Your task to perform on an android device: move an email to a new category in the gmail app Image 0: 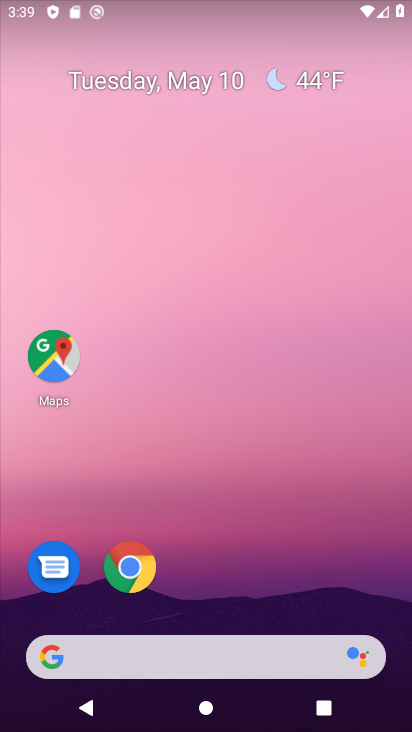
Step 0: drag from (213, 607) to (262, 73)
Your task to perform on an android device: move an email to a new category in the gmail app Image 1: 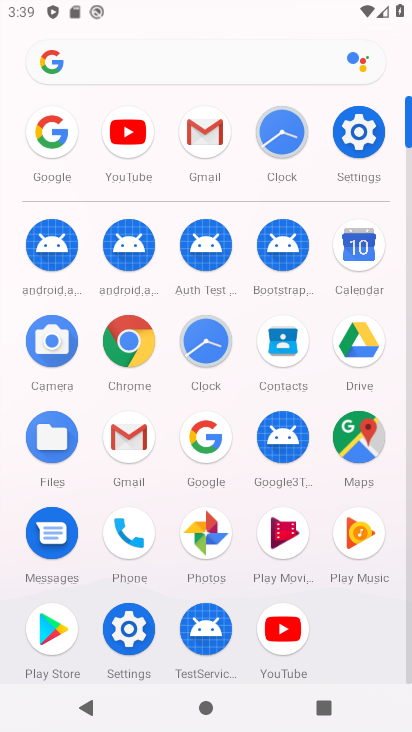
Step 1: click (204, 134)
Your task to perform on an android device: move an email to a new category in the gmail app Image 2: 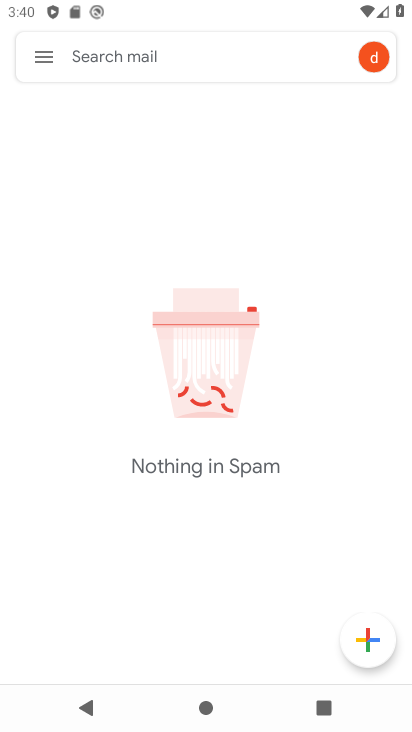
Step 2: click (43, 58)
Your task to perform on an android device: move an email to a new category in the gmail app Image 3: 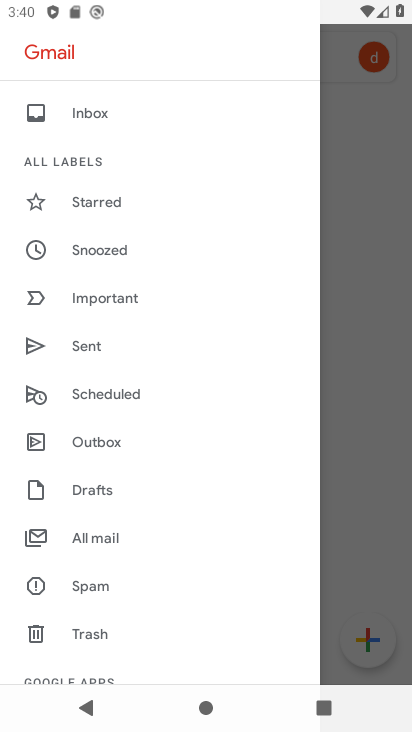
Step 3: drag from (96, 489) to (102, 422)
Your task to perform on an android device: move an email to a new category in the gmail app Image 4: 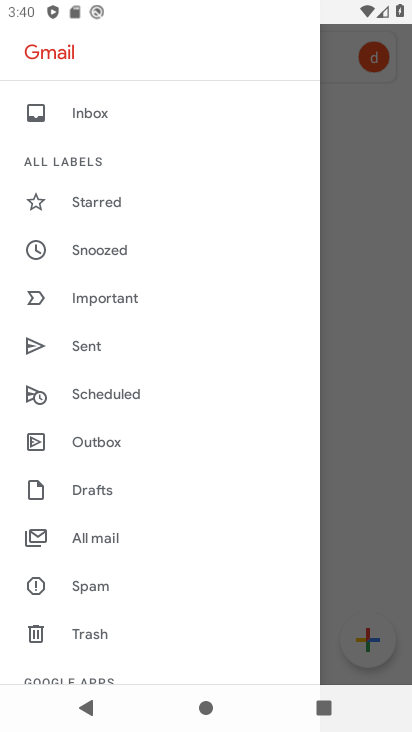
Step 4: click (117, 531)
Your task to perform on an android device: move an email to a new category in the gmail app Image 5: 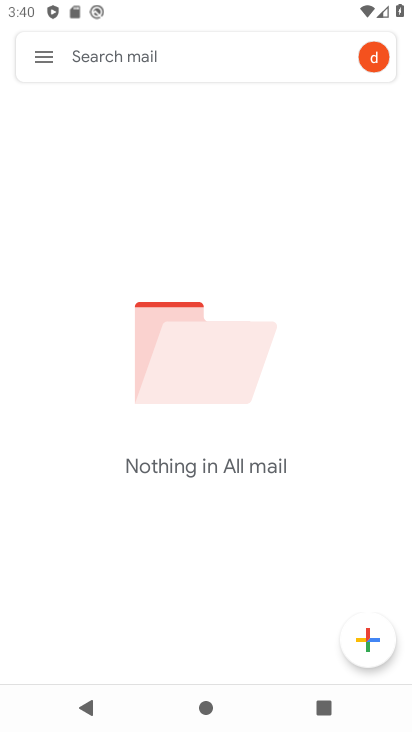
Step 5: task complete